Your task to perform on an android device: install app "WhatsApp Messenger" Image 0: 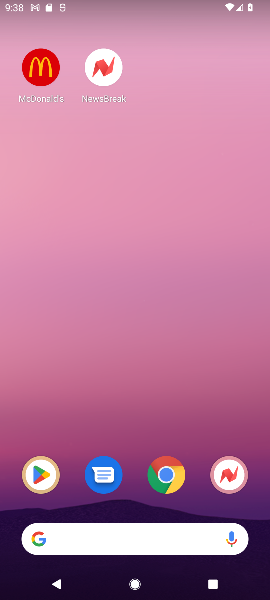
Step 0: drag from (117, 515) to (73, 53)
Your task to perform on an android device: install app "WhatsApp Messenger" Image 1: 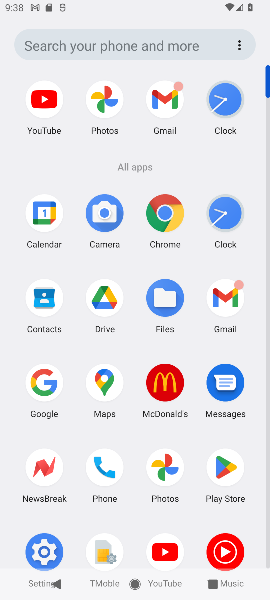
Step 1: click (216, 470)
Your task to perform on an android device: install app "WhatsApp Messenger" Image 2: 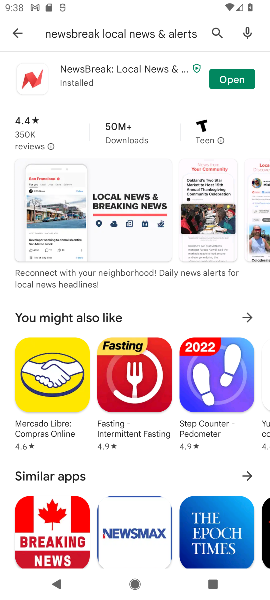
Step 2: click (10, 31)
Your task to perform on an android device: install app "WhatsApp Messenger" Image 3: 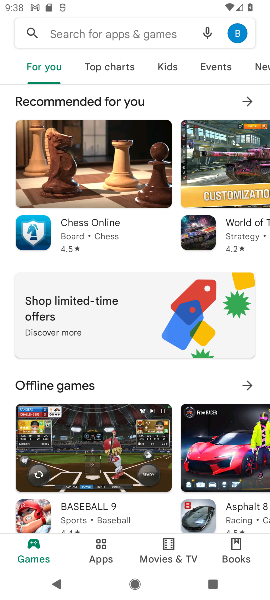
Step 3: click (85, 28)
Your task to perform on an android device: install app "WhatsApp Messenger" Image 4: 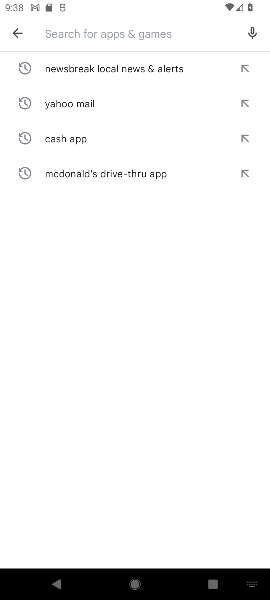
Step 4: type "WhatsApp Messenger"
Your task to perform on an android device: install app "WhatsApp Messenger" Image 5: 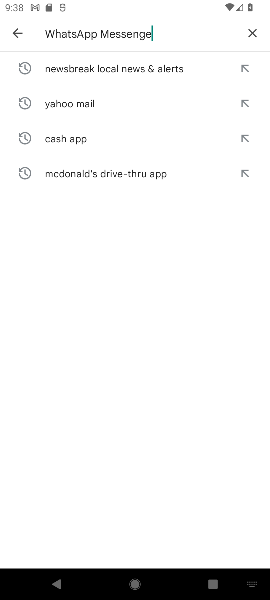
Step 5: type ""
Your task to perform on an android device: install app "WhatsApp Messenger" Image 6: 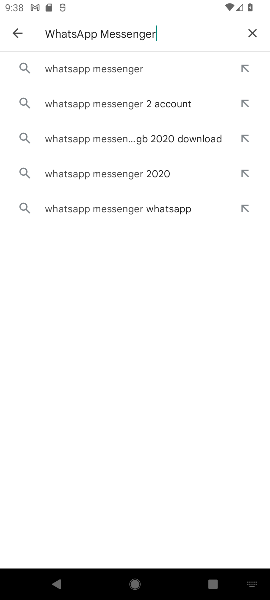
Step 6: click (139, 73)
Your task to perform on an android device: install app "WhatsApp Messenger" Image 7: 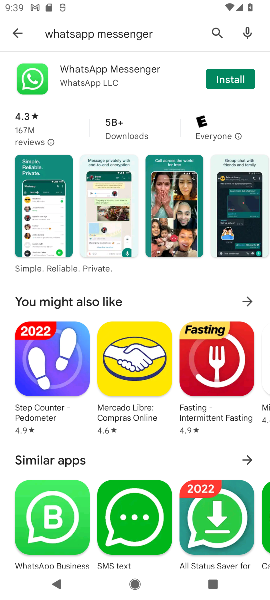
Step 7: click (235, 79)
Your task to perform on an android device: install app "WhatsApp Messenger" Image 8: 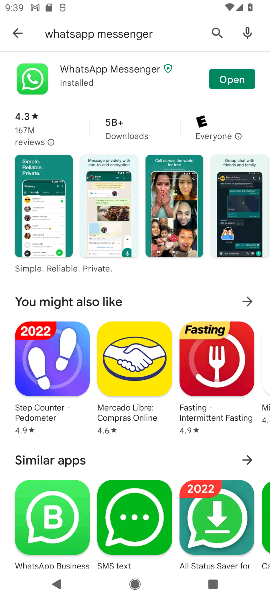
Step 8: click (220, 80)
Your task to perform on an android device: install app "WhatsApp Messenger" Image 9: 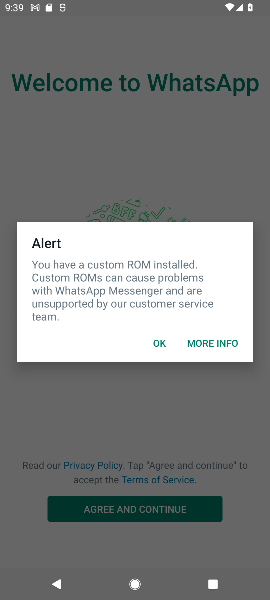
Step 9: task complete